Your task to perform on an android device: Open Wikipedia Image 0: 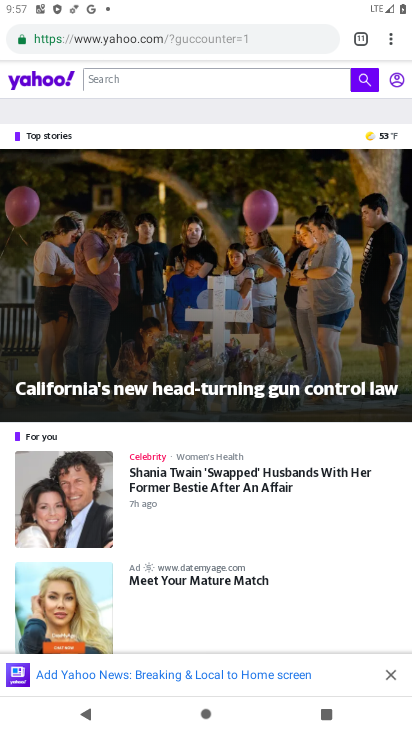
Step 0: click (384, 31)
Your task to perform on an android device: Open Wikipedia Image 1: 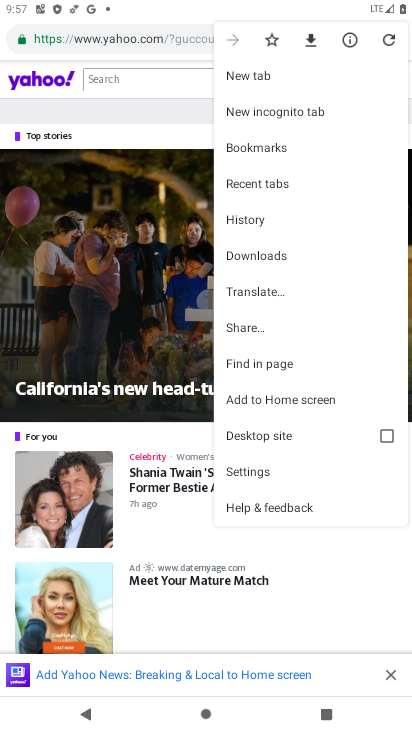
Step 1: click (245, 74)
Your task to perform on an android device: Open Wikipedia Image 2: 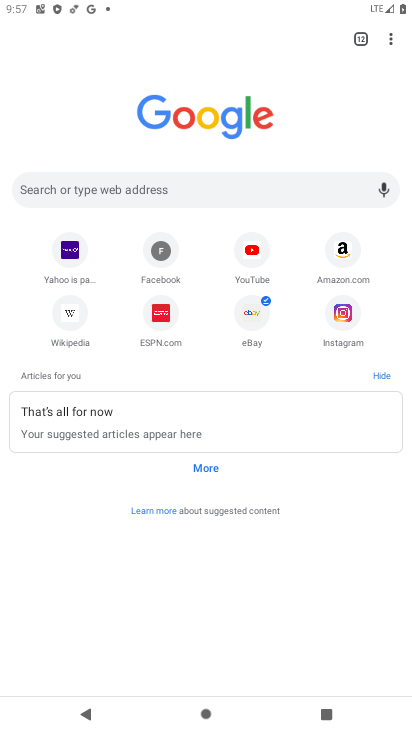
Step 2: click (71, 317)
Your task to perform on an android device: Open Wikipedia Image 3: 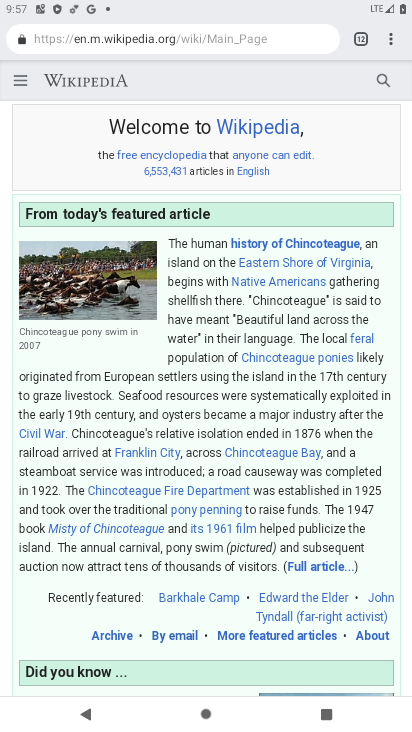
Step 3: task complete